Your task to perform on an android device: Search for pizza restaurants on Maps Image 0: 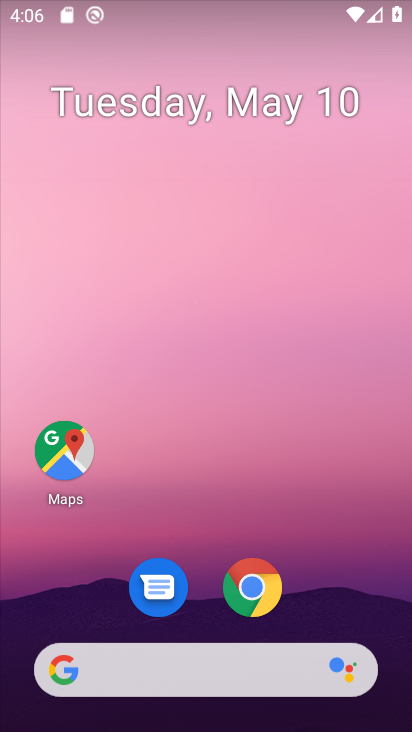
Step 0: click (51, 432)
Your task to perform on an android device: Search for pizza restaurants on Maps Image 1: 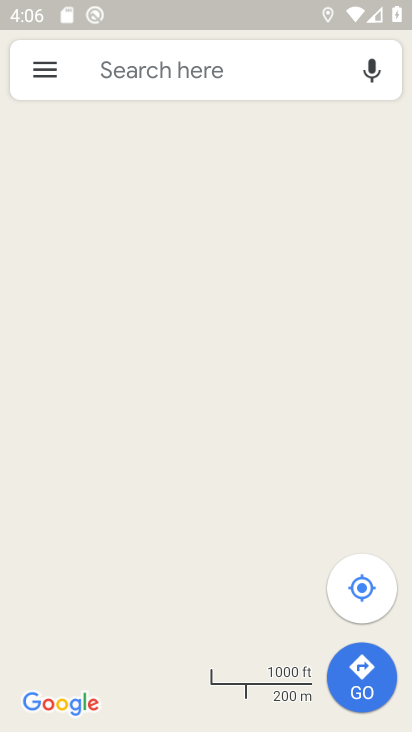
Step 1: click (236, 65)
Your task to perform on an android device: Search for pizza restaurants on Maps Image 2: 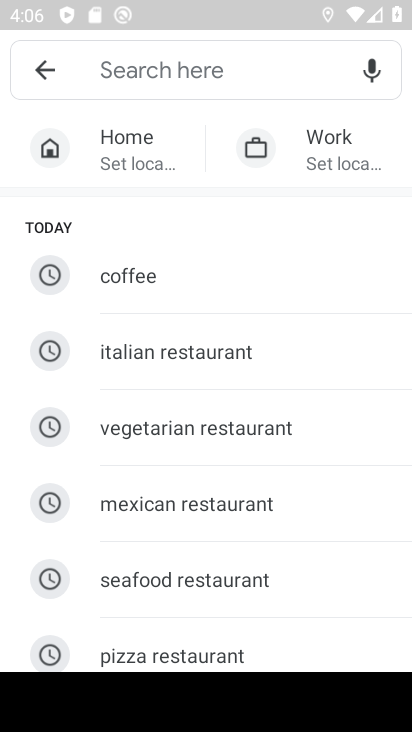
Step 2: type "Pizza restaurants"
Your task to perform on an android device: Search for pizza restaurants on Maps Image 3: 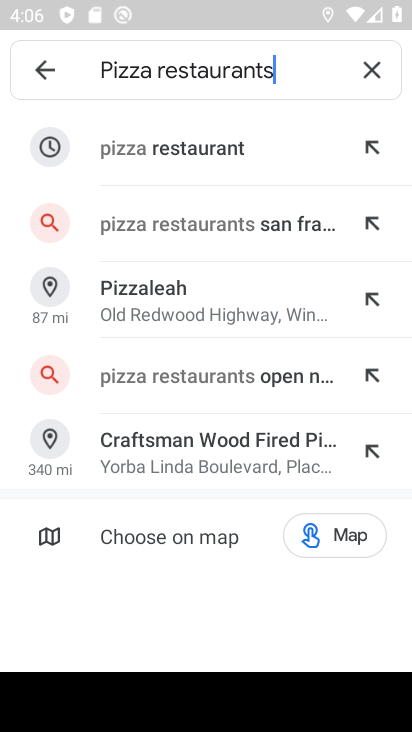
Step 3: click (233, 172)
Your task to perform on an android device: Search for pizza restaurants on Maps Image 4: 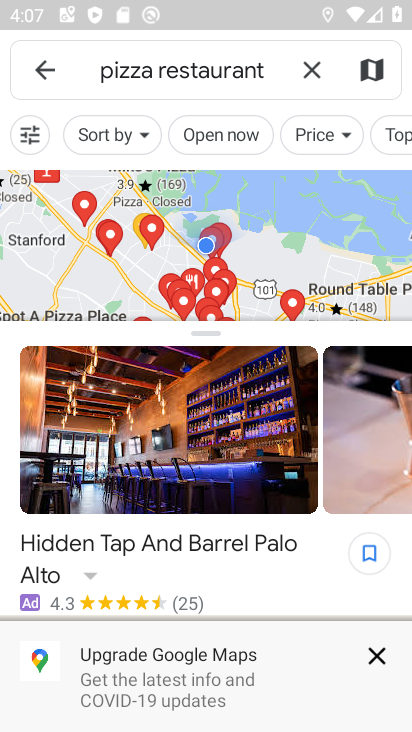
Step 4: task complete